Your task to perform on an android device: move a message to another label in the gmail app Image 0: 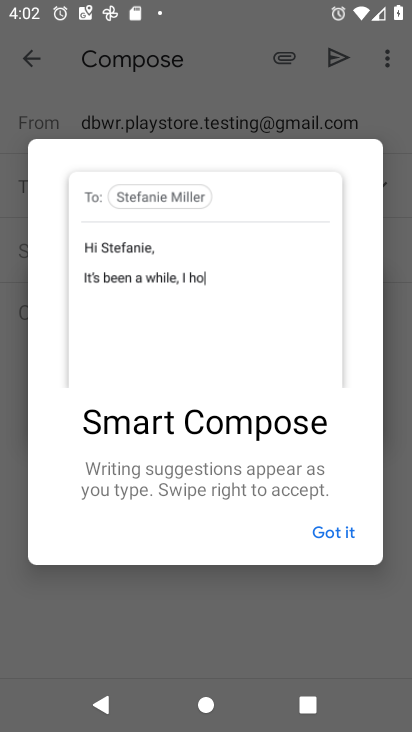
Step 0: press home button
Your task to perform on an android device: move a message to another label in the gmail app Image 1: 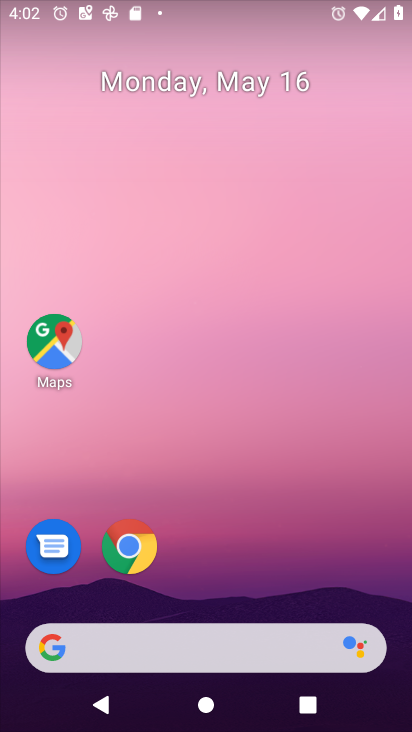
Step 1: drag from (388, 561) to (136, 14)
Your task to perform on an android device: move a message to another label in the gmail app Image 2: 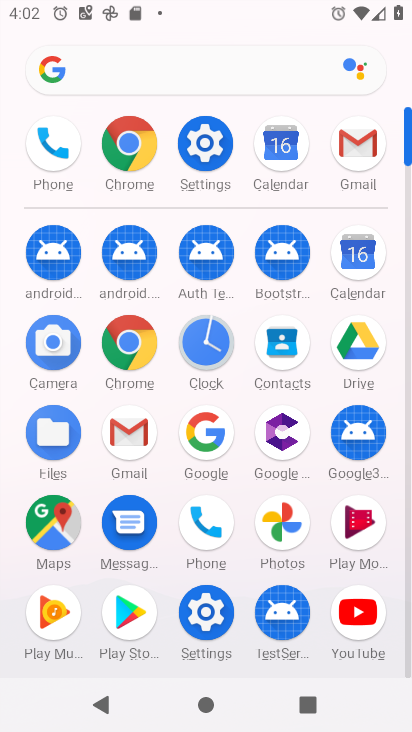
Step 2: click (119, 426)
Your task to perform on an android device: move a message to another label in the gmail app Image 3: 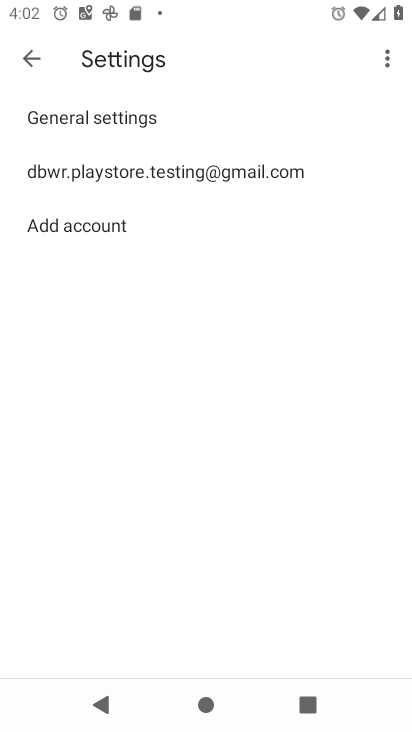
Step 3: click (34, 59)
Your task to perform on an android device: move a message to another label in the gmail app Image 4: 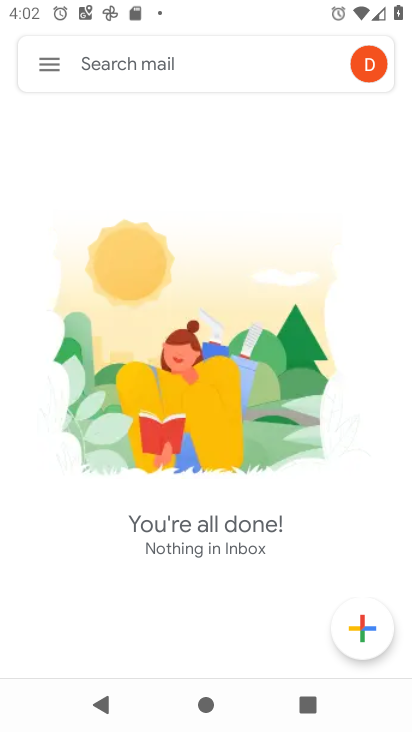
Step 4: click (45, 61)
Your task to perform on an android device: move a message to another label in the gmail app Image 5: 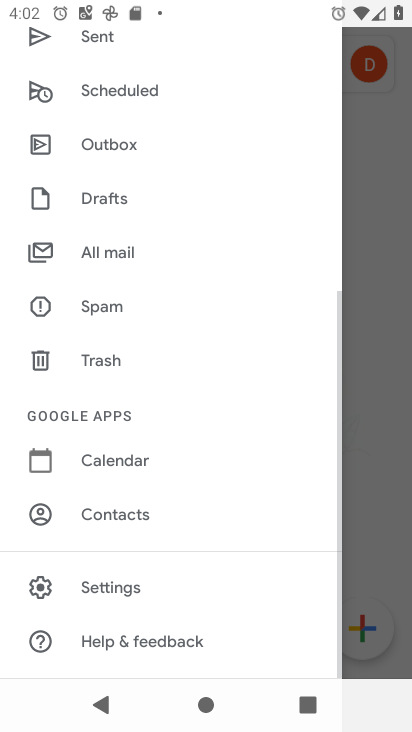
Step 5: task complete